Your task to perform on an android device: clear history in the chrome app Image 0: 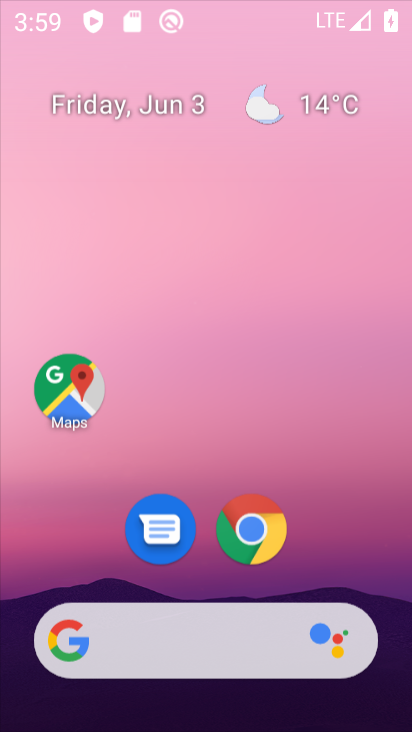
Step 0: press home button
Your task to perform on an android device: clear history in the chrome app Image 1: 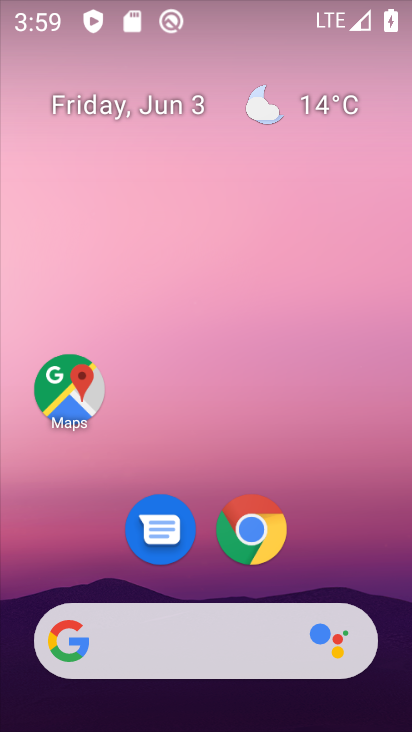
Step 1: click (246, 523)
Your task to perform on an android device: clear history in the chrome app Image 2: 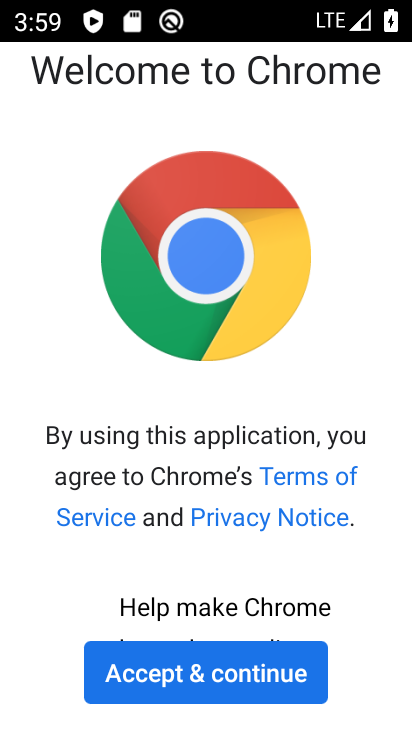
Step 2: click (200, 672)
Your task to perform on an android device: clear history in the chrome app Image 3: 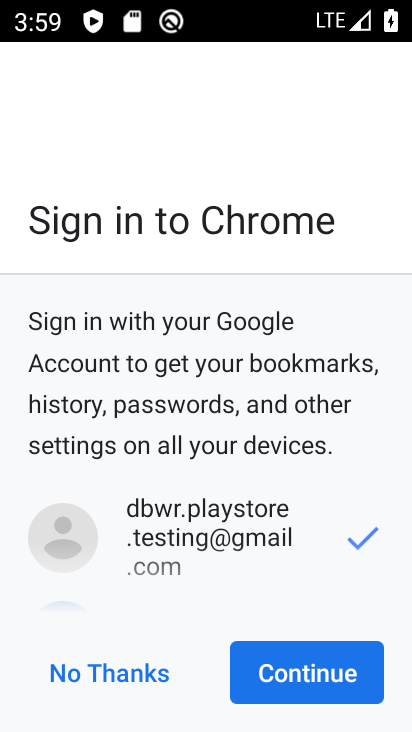
Step 3: click (315, 666)
Your task to perform on an android device: clear history in the chrome app Image 4: 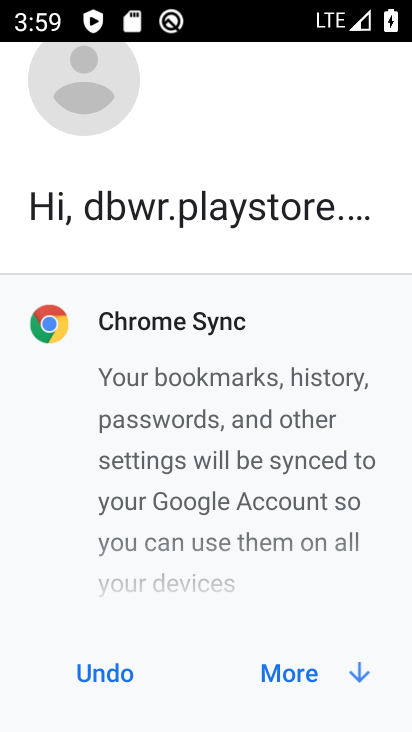
Step 4: click (315, 666)
Your task to perform on an android device: clear history in the chrome app Image 5: 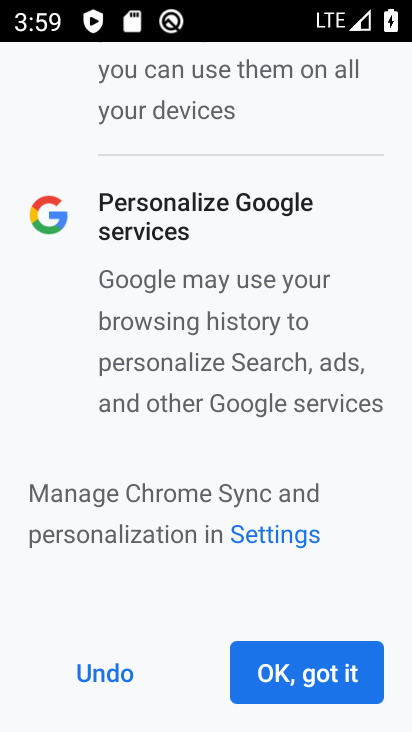
Step 5: click (315, 666)
Your task to perform on an android device: clear history in the chrome app Image 6: 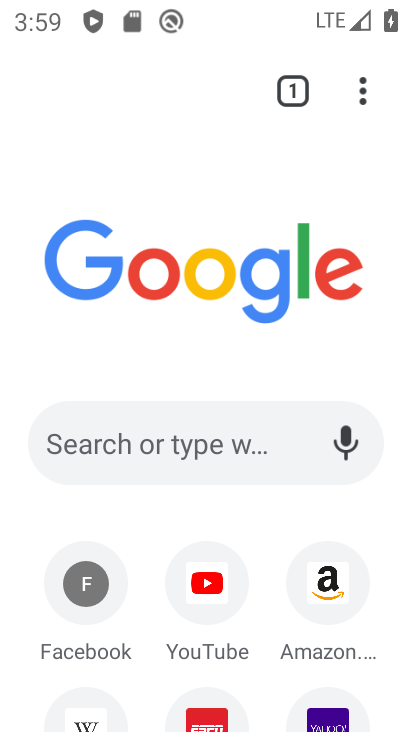
Step 6: click (365, 91)
Your task to perform on an android device: clear history in the chrome app Image 7: 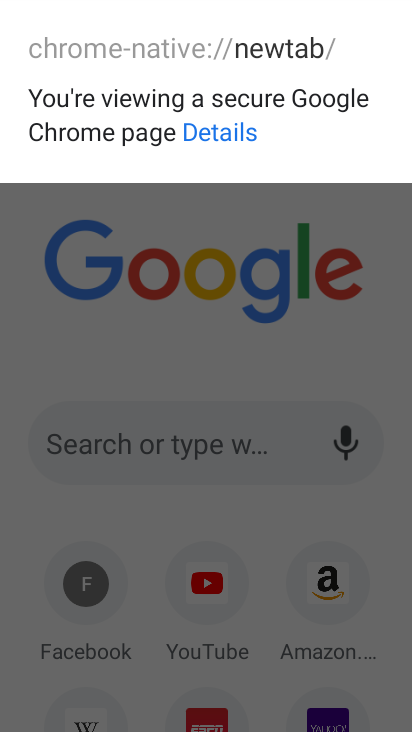
Step 7: click (210, 357)
Your task to perform on an android device: clear history in the chrome app Image 8: 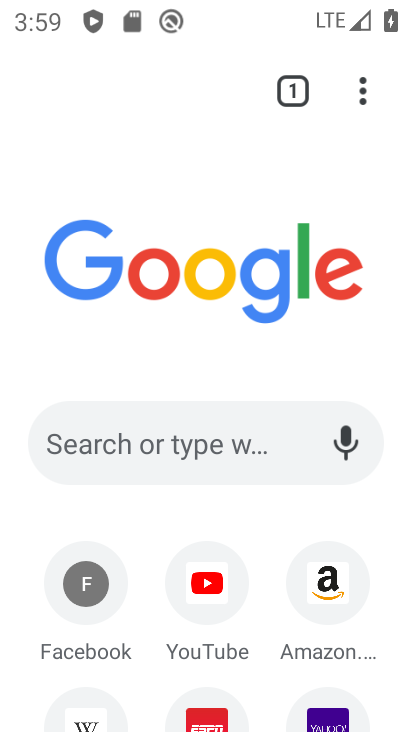
Step 8: click (360, 90)
Your task to perform on an android device: clear history in the chrome app Image 9: 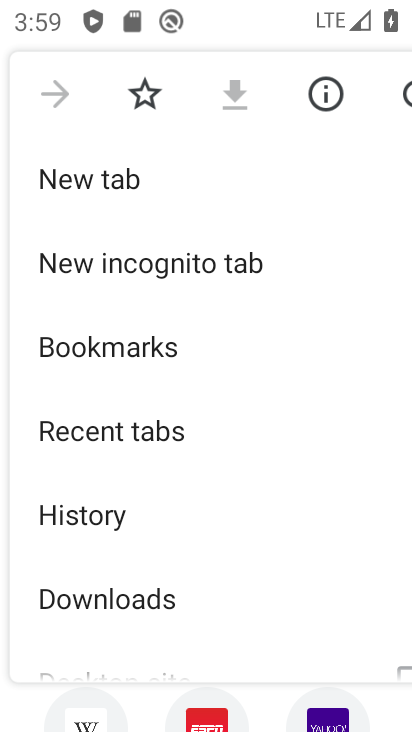
Step 9: click (151, 517)
Your task to perform on an android device: clear history in the chrome app Image 10: 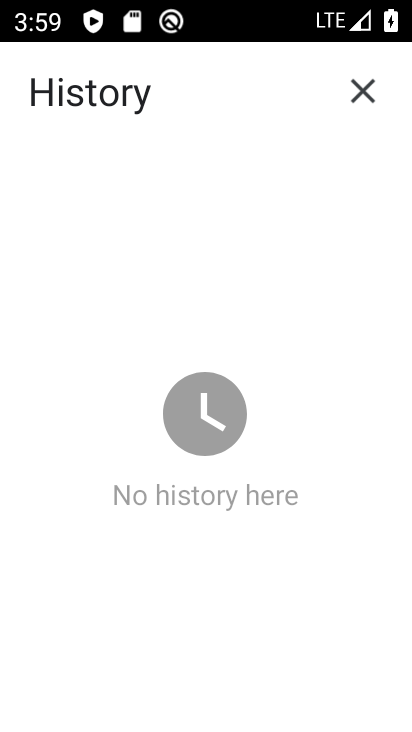
Step 10: task complete